Your task to perform on an android device: toggle wifi Image 0: 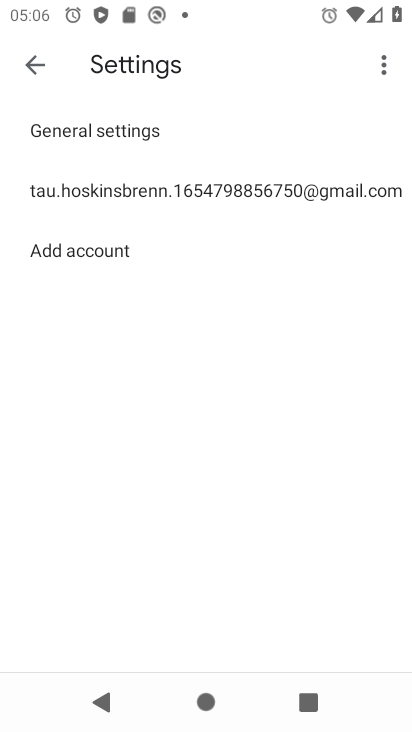
Step 0: press back button
Your task to perform on an android device: toggle wifi Image 1: 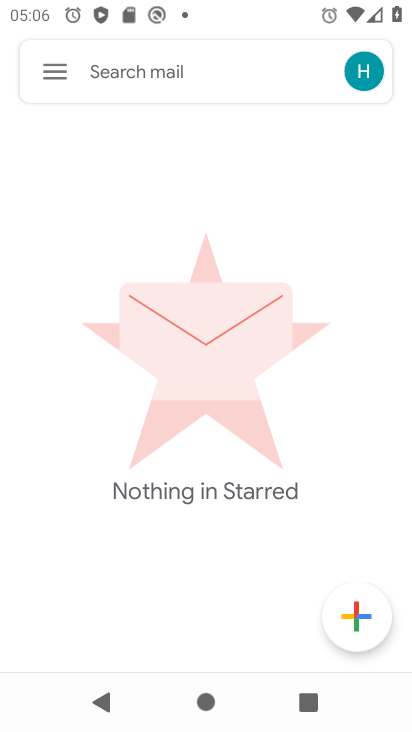
Step 1: press home button
Your task to perform on an android device: toggle wifi Image 2: 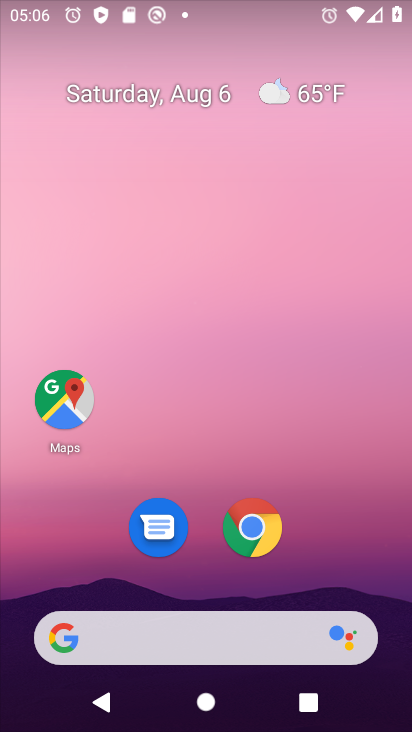
Step 2: drag from (207, 624) to (204, 17)
Your task to perform on an android device: toggle wifi Image 3: 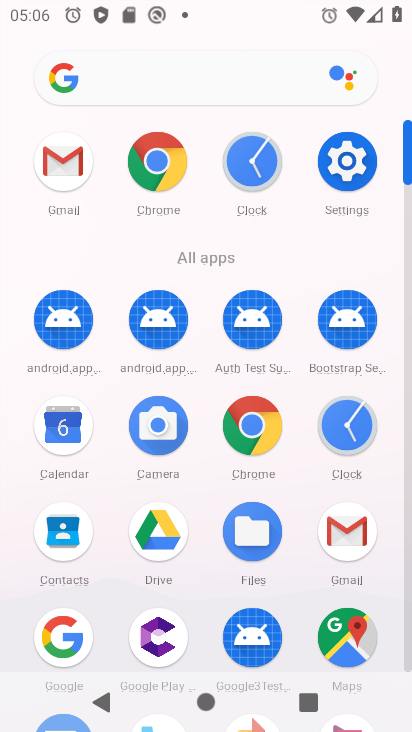
Step 3: click (359, 186)
Your task to perform on an android device: toggle wifi Image 4: 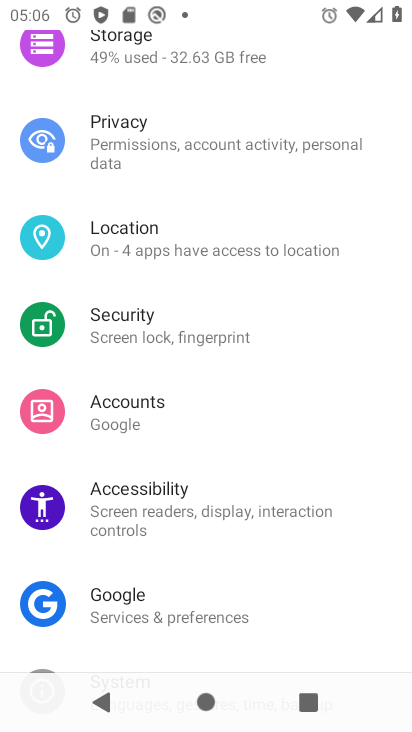
Step 4: drag from (188, 91) to (211, 440)
Your task to perform on an android device: toggle wifi Image 5: 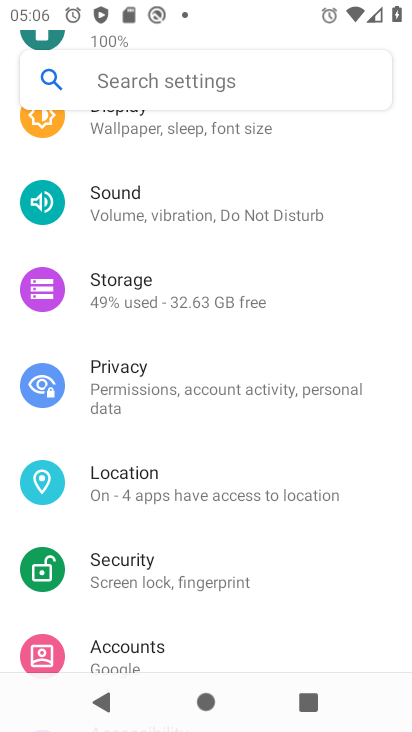
Step 5: drag from (198, 146) to (265, 552)
Your task to perform on an android device: toggle wifi Image 6: 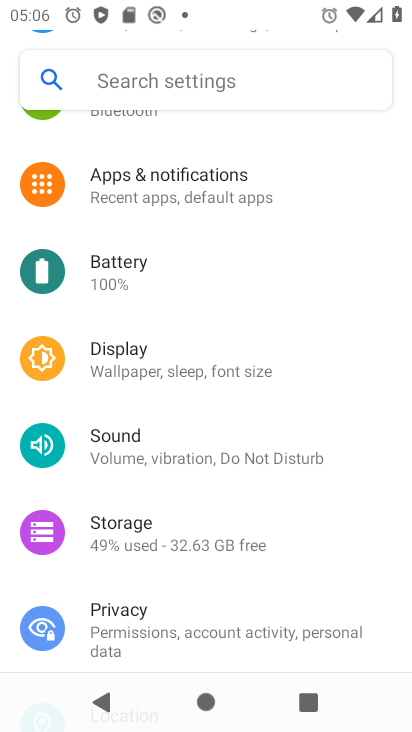
Step 6: drag from (167, 181) to (228, 594)
Your task to perform on an android device: toggle wifi Image 7: 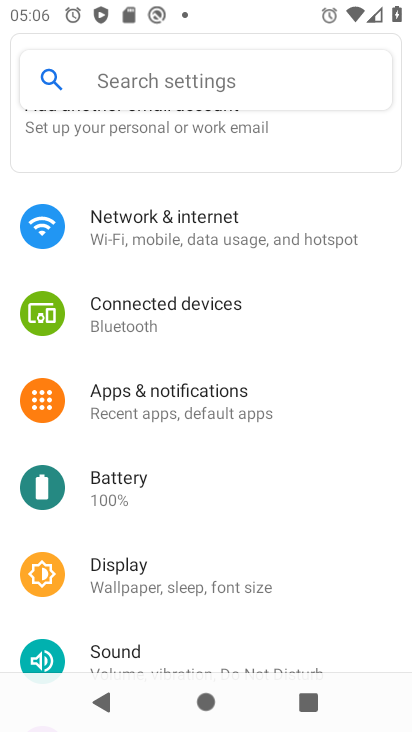
Step 7: click (200, 223)
Your task to perform on an android device: toggle wifi Image 8: 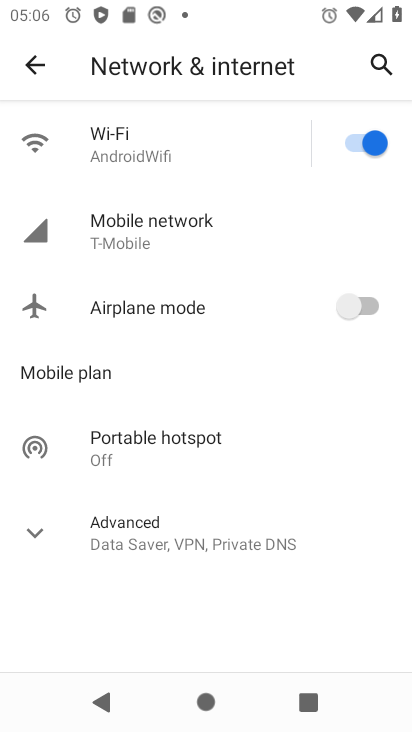
Step 8: click (351, 149)
Your task to perform on an android device: toggle wifi Image 9: 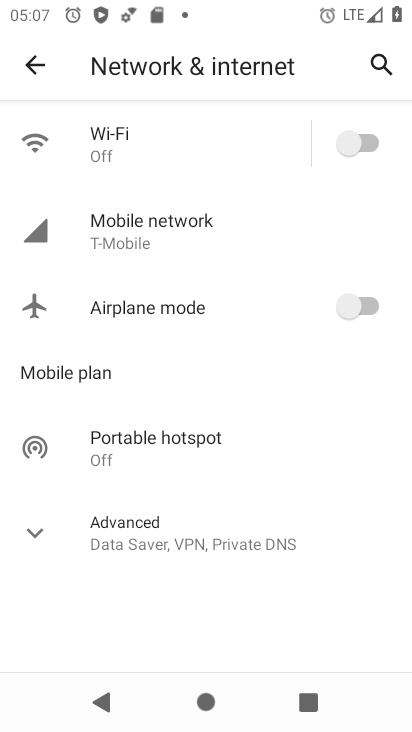
Step 9: task complete